Your task to perform on an android device: Do I have any events tomorrow? Image 0: 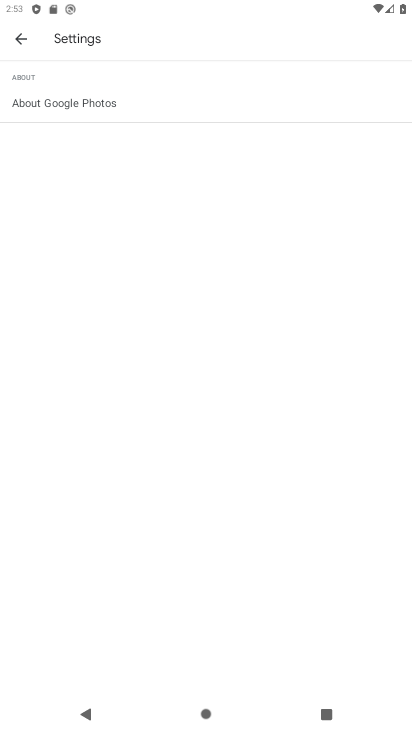
Step 0: press home button
Your task to perform on an android device: Do I have any events tomorrow? Image 1: 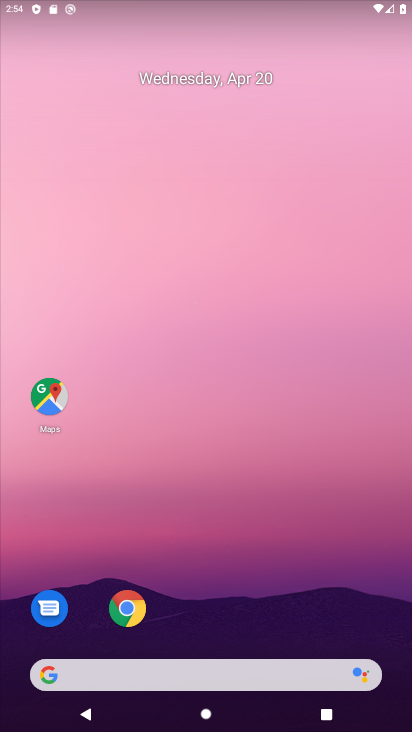
Step 1: drag from (233, 644) to (170, 3)
Your task to perform on an android device: Do I have any events tomorrow? Image 2: 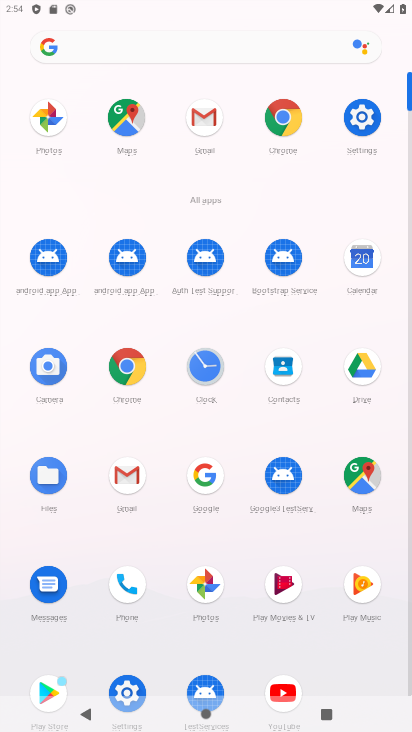
Step 2: click (363, 257)
Your task to perform on an android device: Do I have any events tomorrow? Image 3: 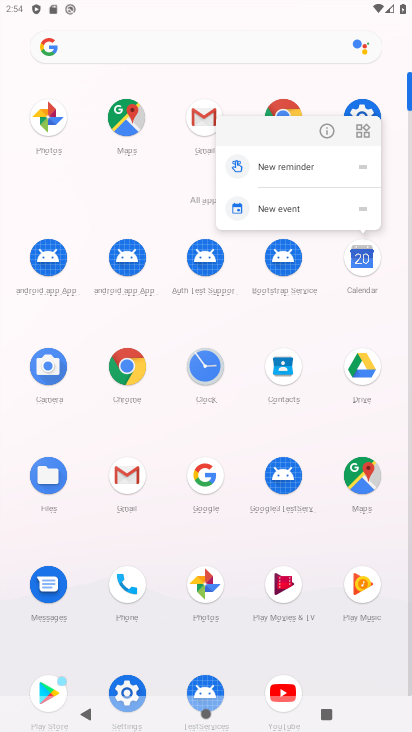
Step 3: click (362, 254)
Your task to perform on an android device: Do I have any events tomorrow? Image 4: 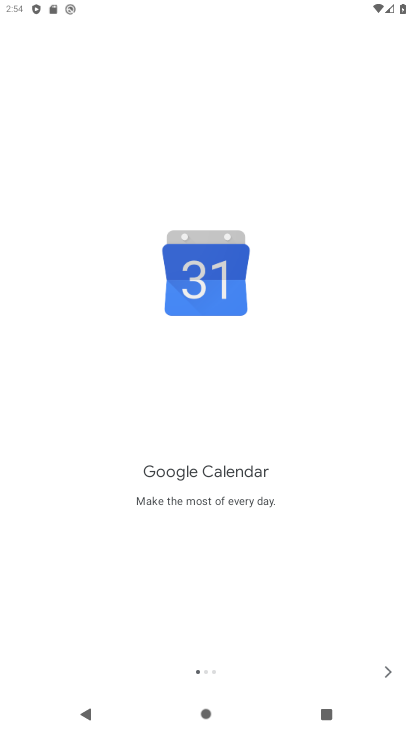
Step 4: click (381, 678)
Your task to perform on an android device: Do I have any events tomorrow? Image 5: 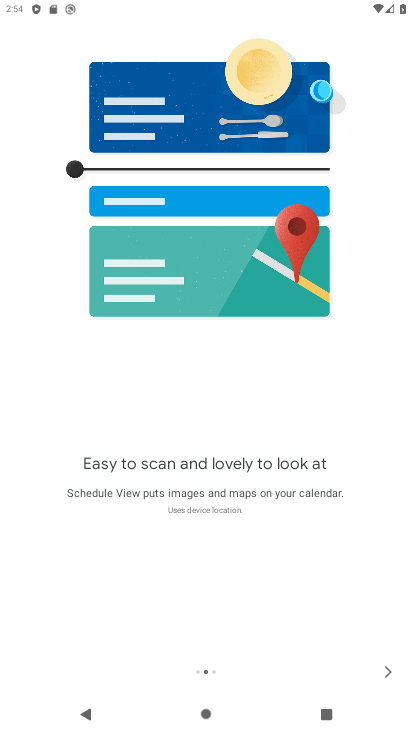
Step 5: click (381, 678)
Your task to perform on an android device: Do I have any events tomorrow? Image 6: 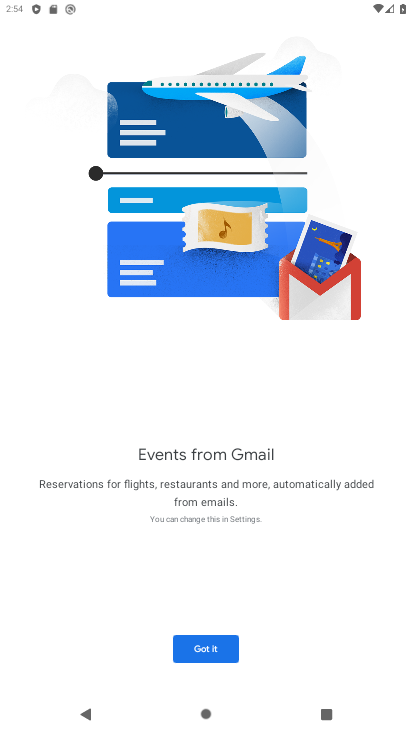
Step 6: click (208, 640)
Your task to perform on an android device: Do I have any events tomorrow? Image 7: 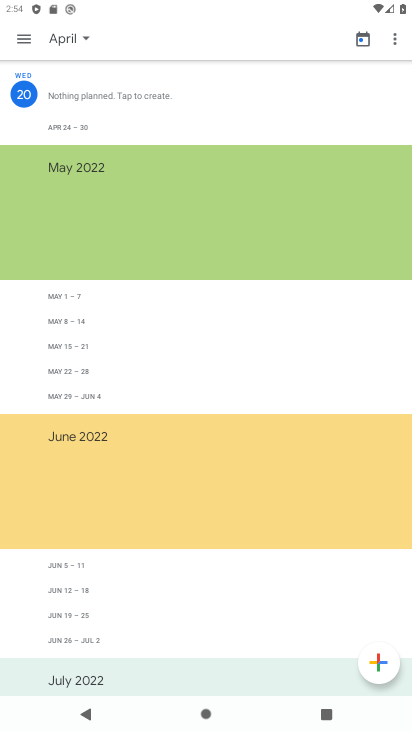
Step 7: click (12, 47)
Your task to perform on an android device: Do I have any events tomorrow? Image 8: 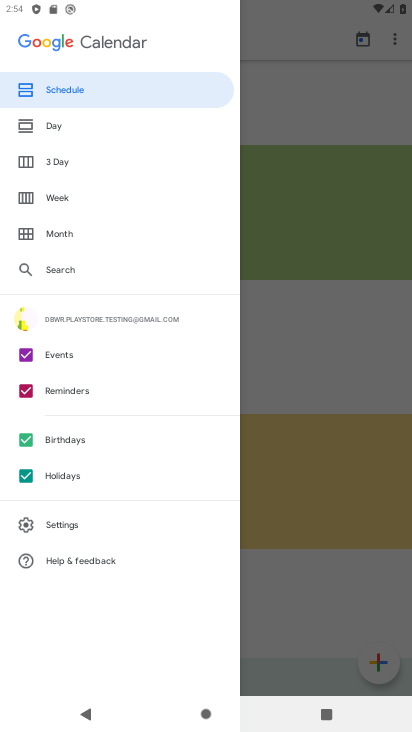
Step 8: click (55, 161)
Your task to perform on an android device: Do I have any events tomorrow? Image 9: 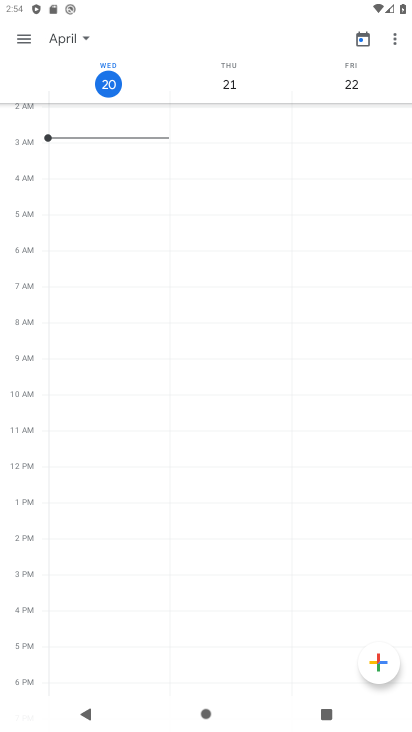
Step 9: click (212, 91)
Your task to perform on an android device: Do I have any events tomorrow? Image 10: 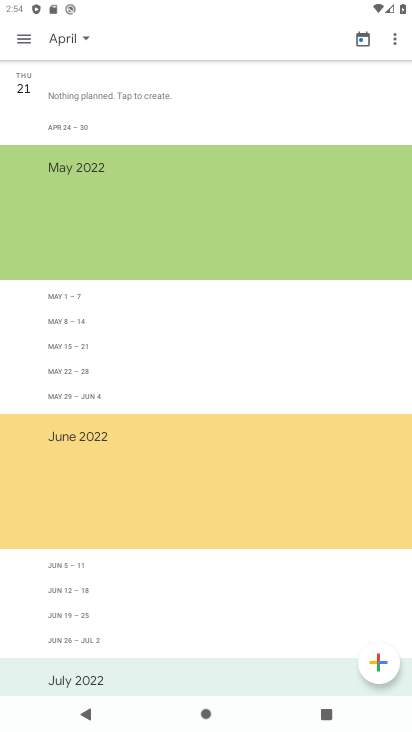
Step 10: task complete